Your task to perform on an android device: What's on my calendar today? Image 0: 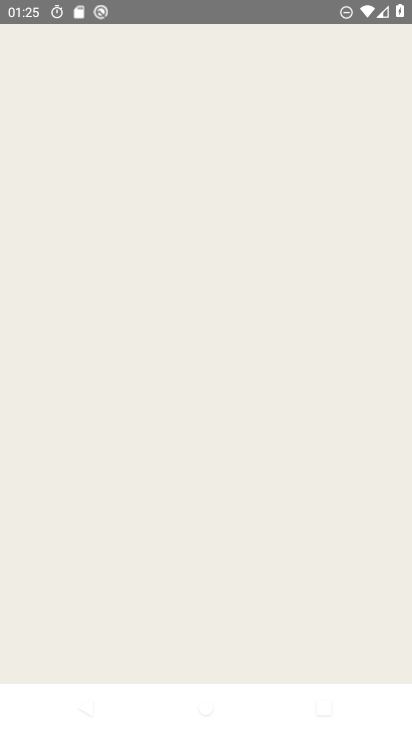
Step 0: click (231, 168)
Your task to perform on an android device: What's on my calendar today? Image 1: 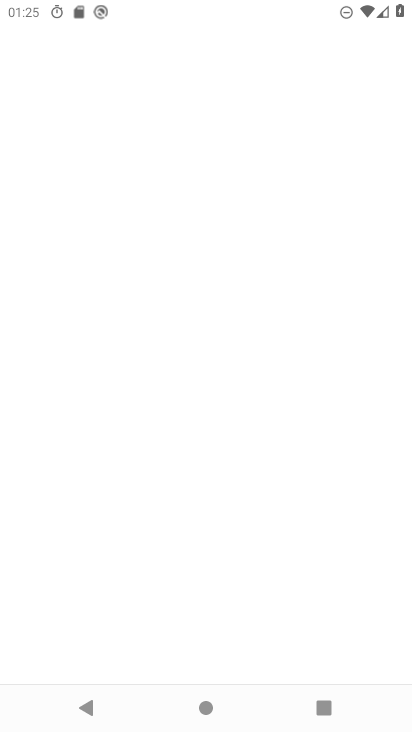
Step 1: press home button
Your task to perform on an android device: What's on my calendar today? Image 2: 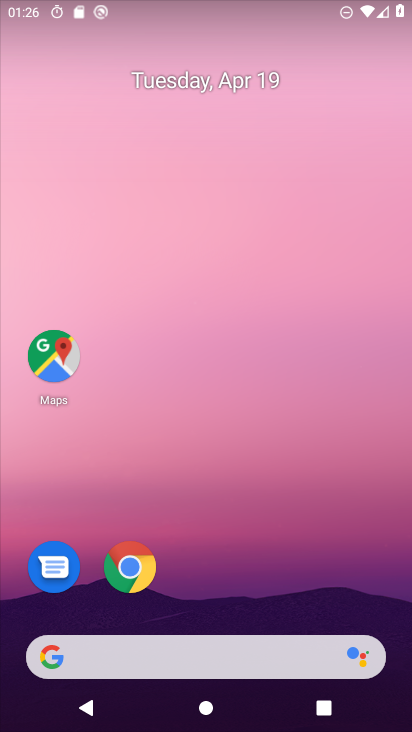
Step 2: drag from (271, 566) to (269, 156)
Your task to perform on an android device: What's on my calendar today? Image 3: 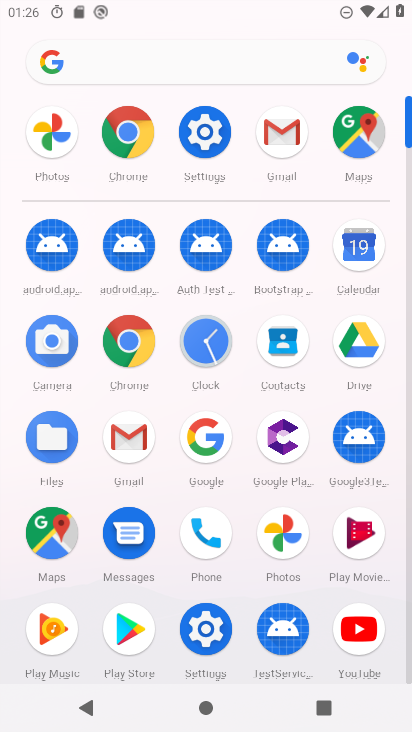
Step 3: click (350, 257)
Your task to perform on an android device: What's on my calendar today? Image 4: 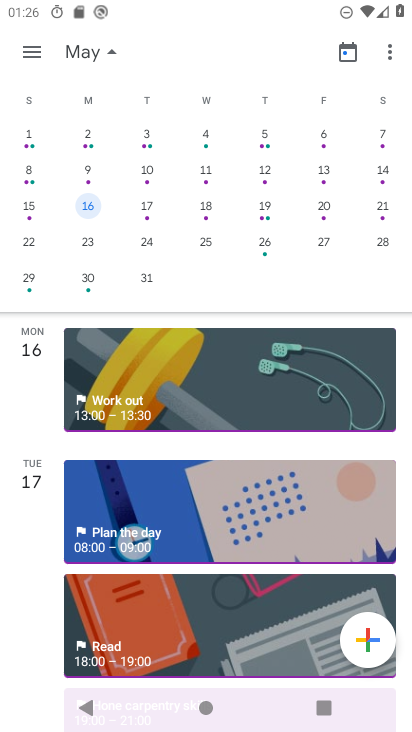
Step 4: drag from (99, 184) to (386, 155)
Your task to perform on an android device: What's on my calendar today? Image 5: 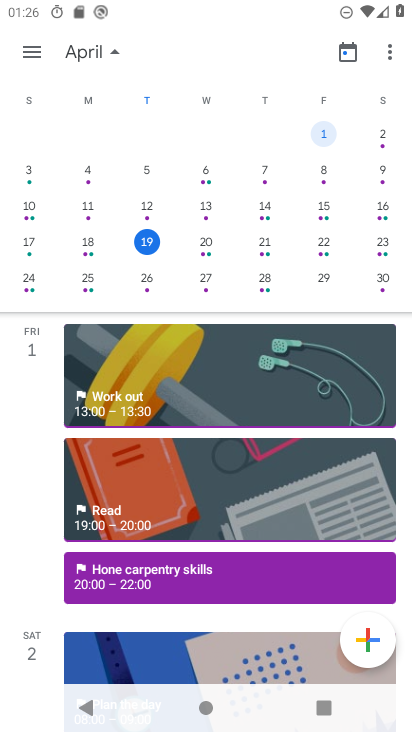
Step 5: click (94, 241)
Your task to perform on an android device: What's on my calendar today? Image 6: 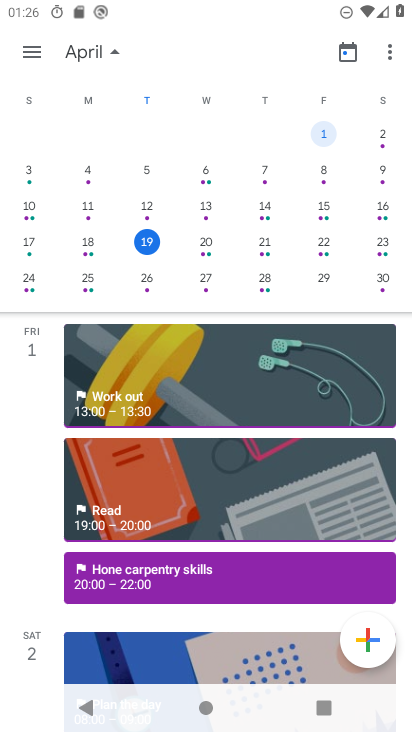
Step 6: click (88, 247)
Your task to perform on an android device: What's on my calendar today? Image 7: 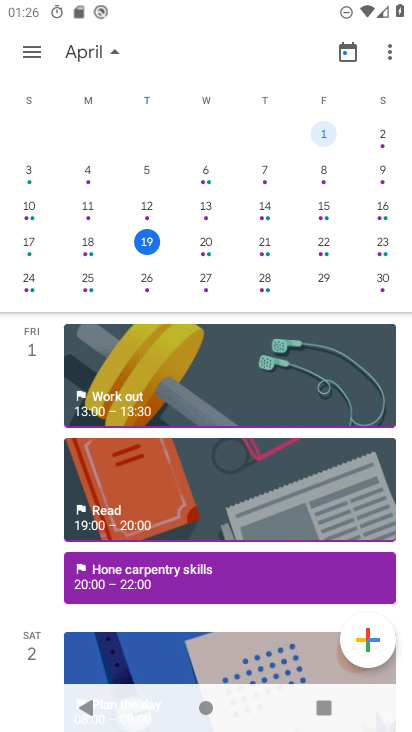
Step 7: click (88, 247)
Your task to perform on an android device: What's on my calendar today? Image 8: 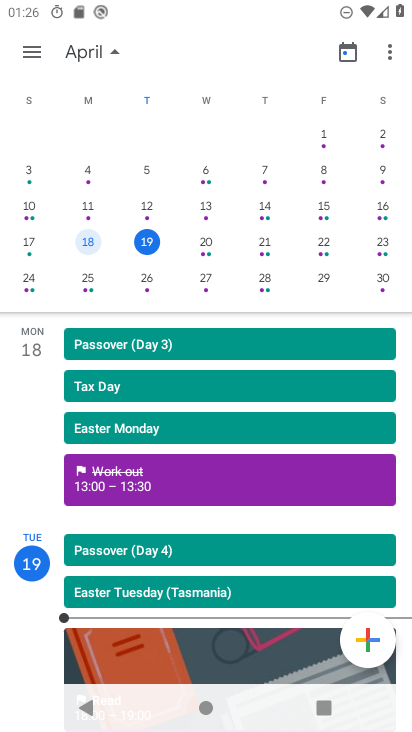
Step 8: click (157, 245)
Your task to perform on an android device: What's on my calendar today? Image 9: 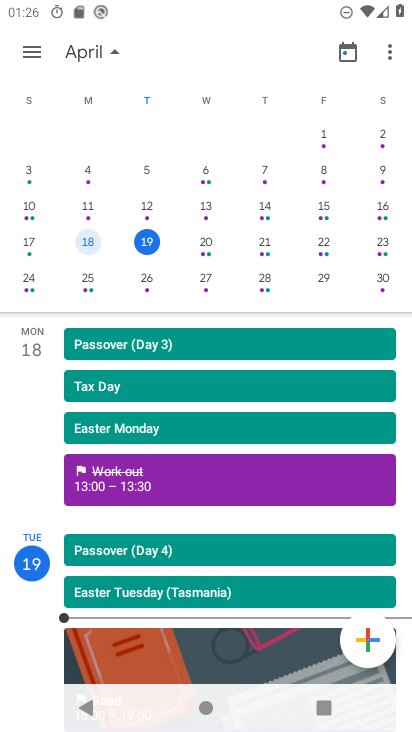
Step 9: click (142, 247)
Your task to perform on an android device: What's on my calendar today? Image 10: 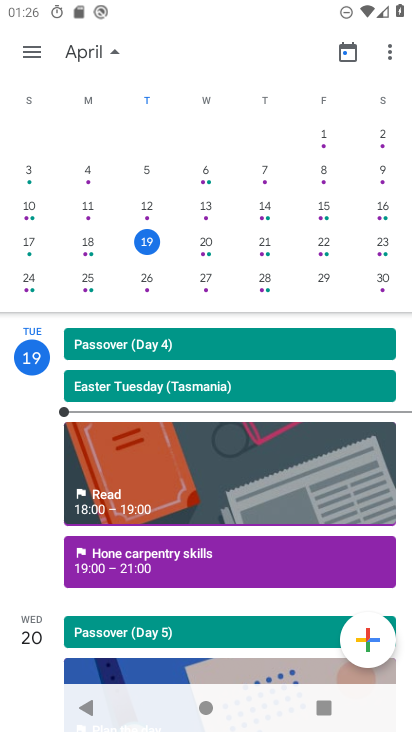
Step 10: task complete